Your task to perform on an android device: change your default location settings in chrome Image 0: 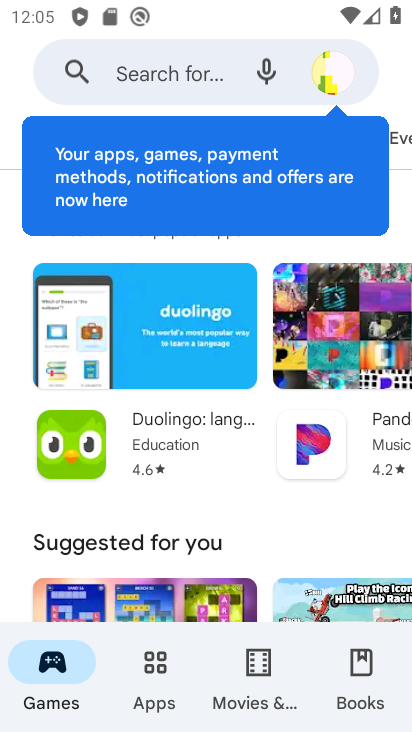
Step 0: press home button
Your task to perform on an android device: change your default location settings in chrome Image 1: 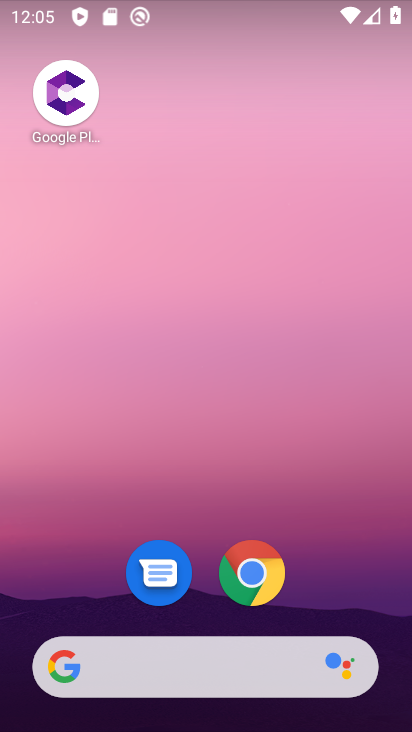
Step 1: click (250, 564)
Your task to perform on an android device: change your default location settings in chrome Image 2: 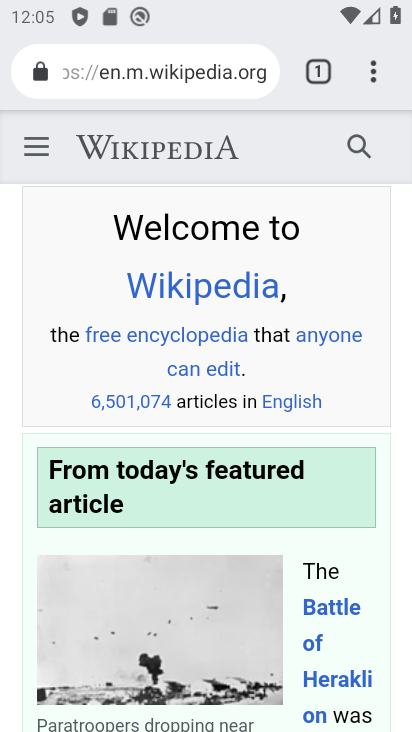
Step 2: click (369, 66)
Your task to perform on an android device: change your default location settings in chrome Image 3: 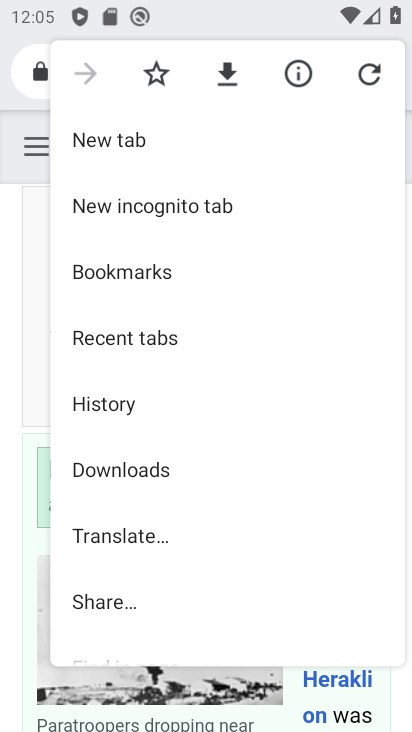
Step 3: drag from (281, 508) to (230, 91)
Your task to perform on an android device: change your default location settings in chrome Image 4: 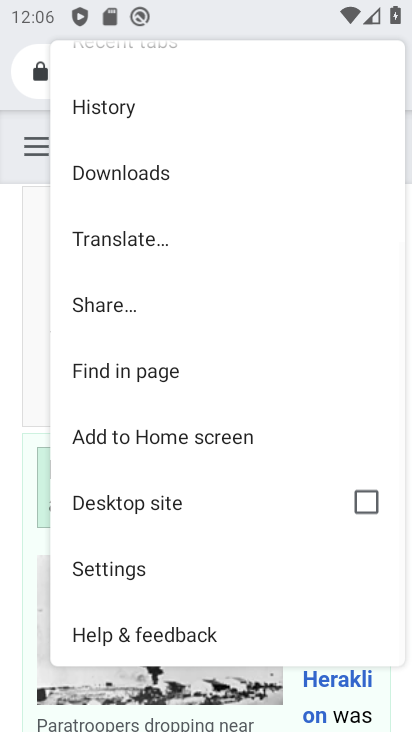
Step 4: click (128, 573)
Your task to perform on an android device: change your default location settings in chrome Image 5: 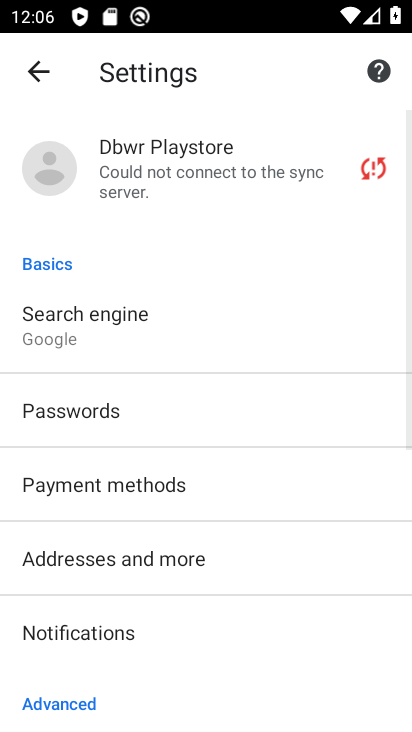
Step 5: drag from (249, 425) to (187, 28)
Your task to perform on an android device: change your default location settings in chrome Image 6: 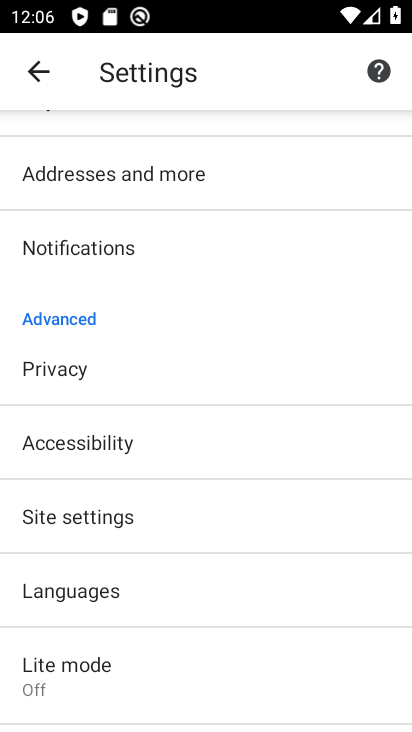
Step 6: click (79, 502)
Your task to perform on an android device: change your default location settings in chrome Image 7: 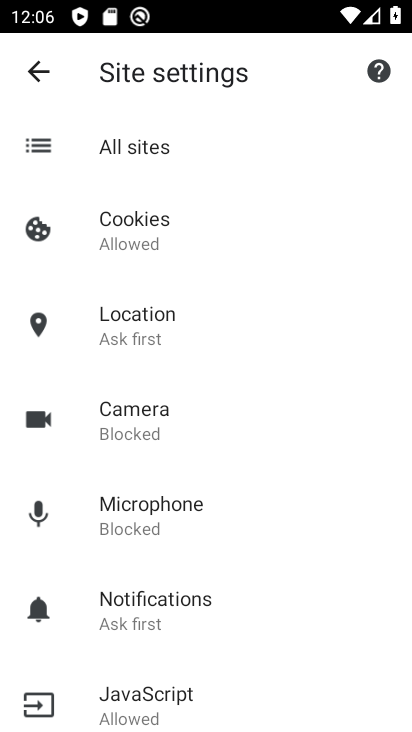
Step 7: drag from (303, 548) to (231, 145)
Your task to perform on an android device: change your default location settings in chrome Image 8: 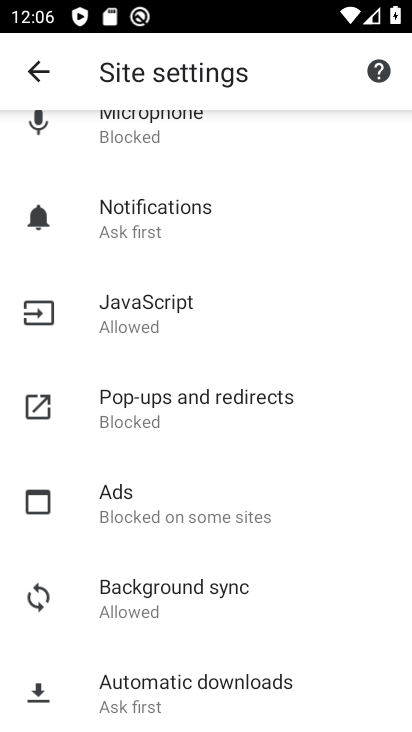
Step 8: drag from (305, 215) to (151, 695)
Your task to perform on an android device: change your default location settings in chrome Image 9: 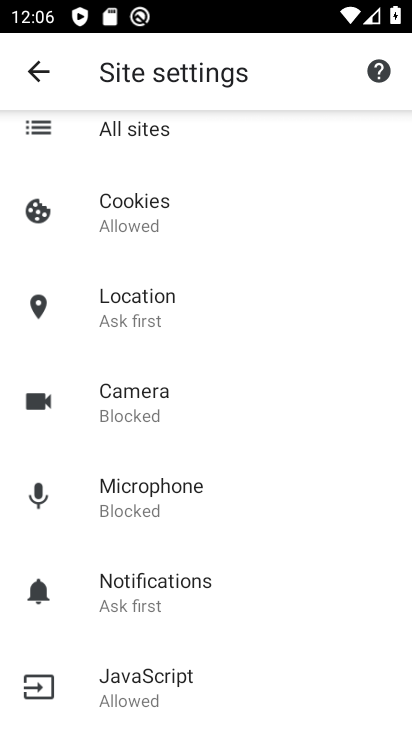
Step 9: click (107, 300)
Your task to perform on an android device: change your default location settings in chrome Image 10: 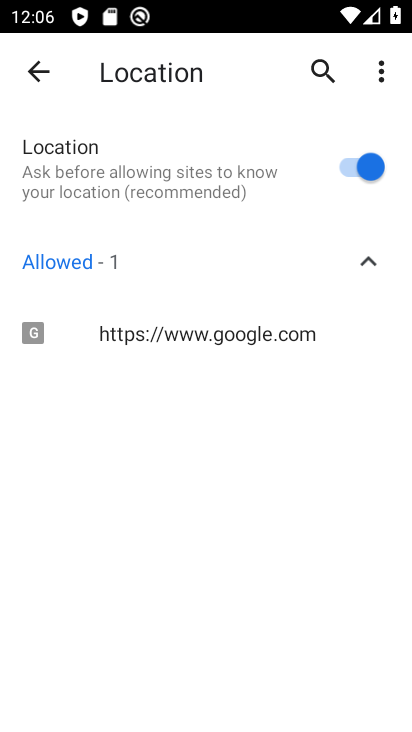
Step 10: click (364, 160)
Your task to perform on an android device: change your default location settings in chrome Image 11: 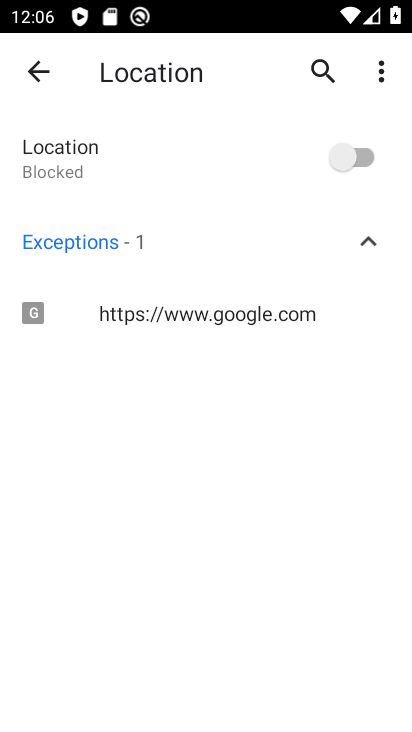
Step 11: task complete